Your task to perform on an android device: Show me the alarms in the clock app Image 0: 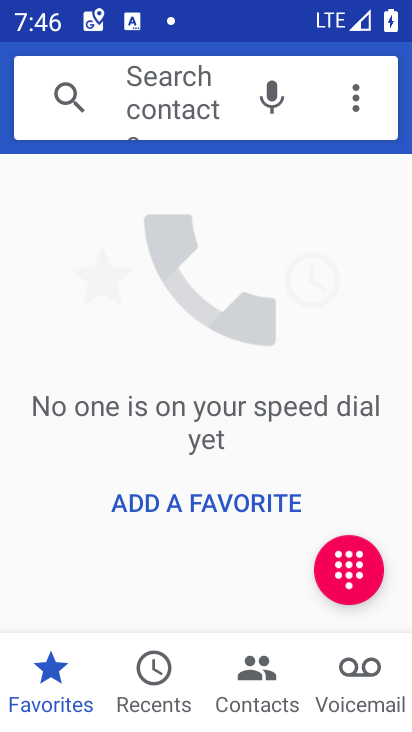
Step 0: press home button
Your task to perform on an android device: Show me the alarms in the clock app Image 1: 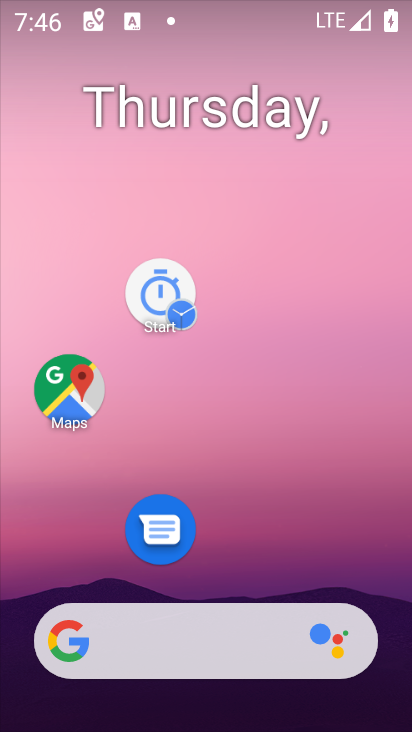
Step 1: drag from (235, 484) to (243, 110)
Your task to perform on an android device: Show me the alarms in the clock app Image 2: 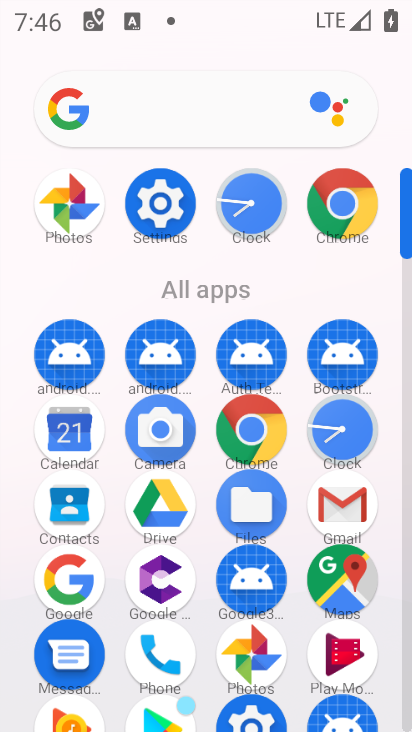
Step 2: click (355, 420)
Your task to perform on an android device: Show me the alarms in the clock app Image 3: 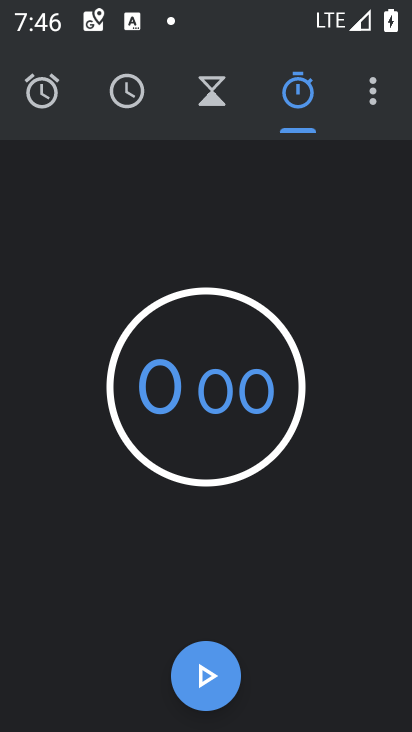
Step 3: click (56, 101)
Your task to perform on an android device: Show me the alarms in the clock app Image 4: 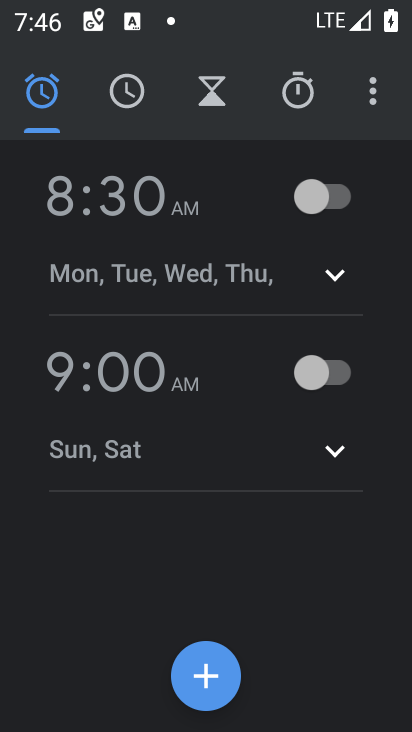
Step 4: task complete